Your task to perform on an android device: Show me productivity apps on the Play Store Image 0: 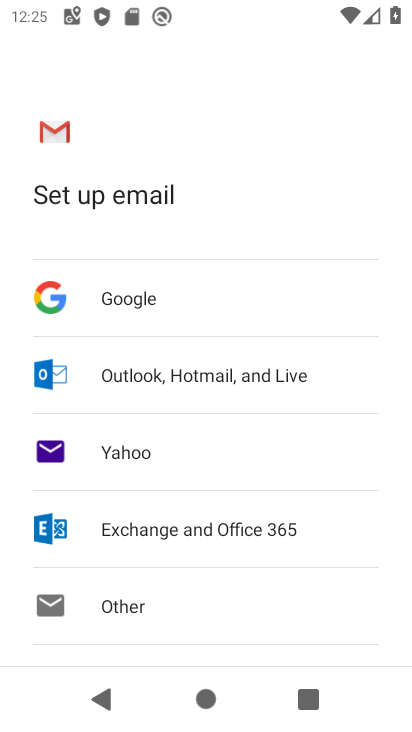
Step 0: press home button
Your task to perform on an android device: Show me productivity apps on the Play Store Image 1: 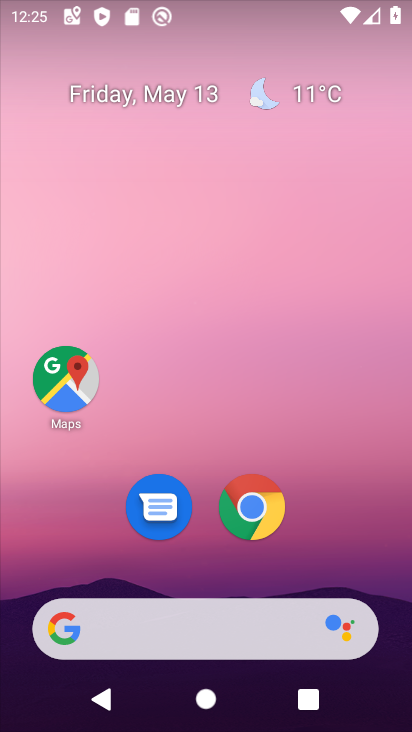
Step 1: drag from (209, 581) to (264, 21)
Your task to perform on an android device: Show me productivity apps on the Play Store Image 2: 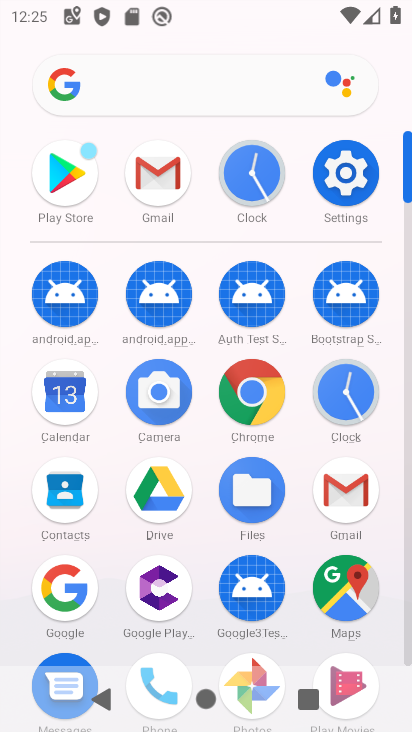
Step 2: click (62, 178)
Your task to perform on an android device: Show me productivity apps on the Play Store Image 3: 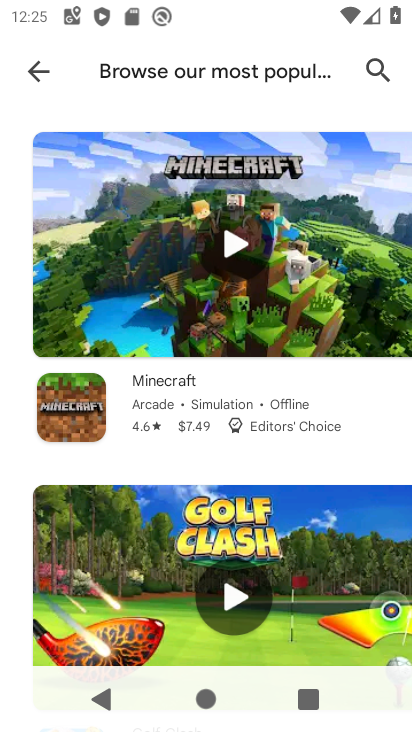
Step 3: click (40, 66)
Your task to perform on an android device: Show me productivity apps on the Play Store Image 4: 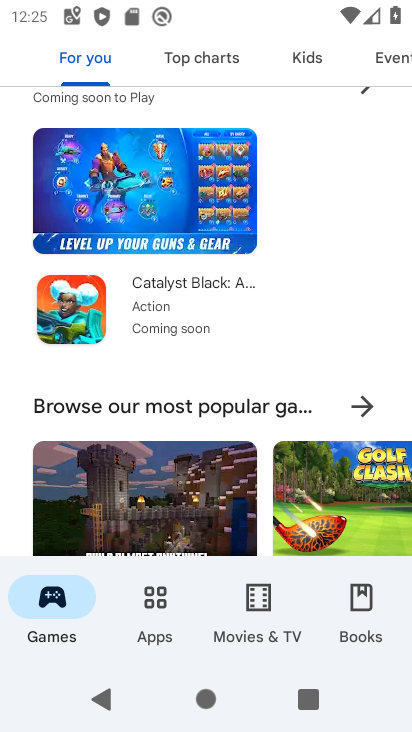
Step 4: click (169, 603)
Your task to perform on an android device: Show me productivity apps on the Play Store Image 5: 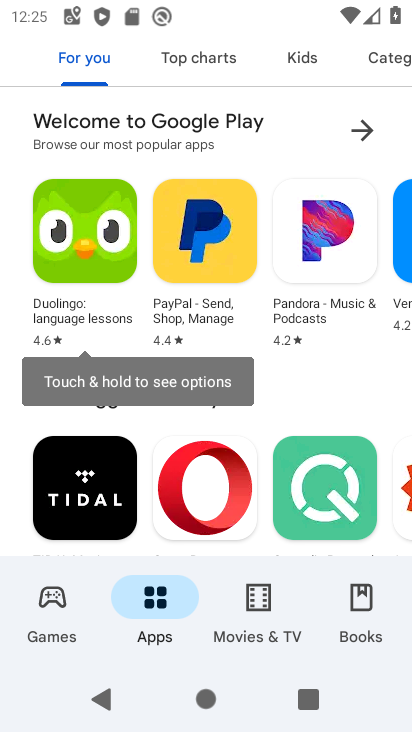
Step 5: click (405, 60)
Your task to perform on an android device: Show me productivity apps on the Play Store Image 6: 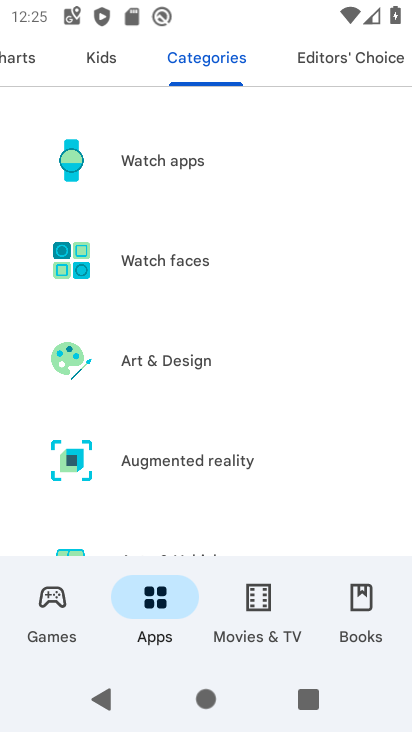
Step 6: drag from (270, 519) to (190, 4)
Your task to perform on an android device: Show me productivity apps on the Play Store Image 7: 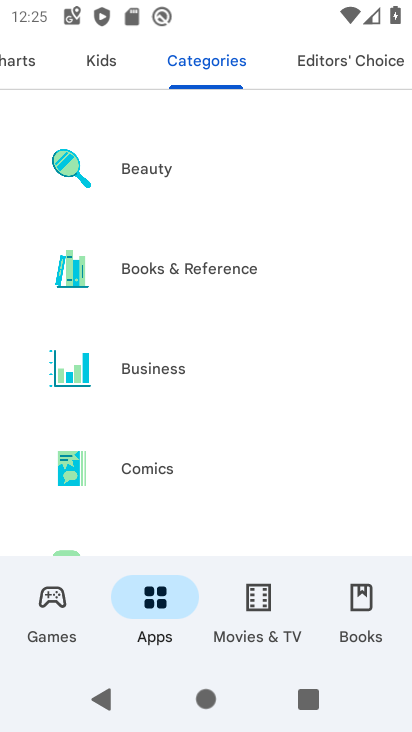
Step 7: drag from (194, 531) to (122, 28)
Your task to perform on an android device: Show me productivity apps on the Play Store Image 8: 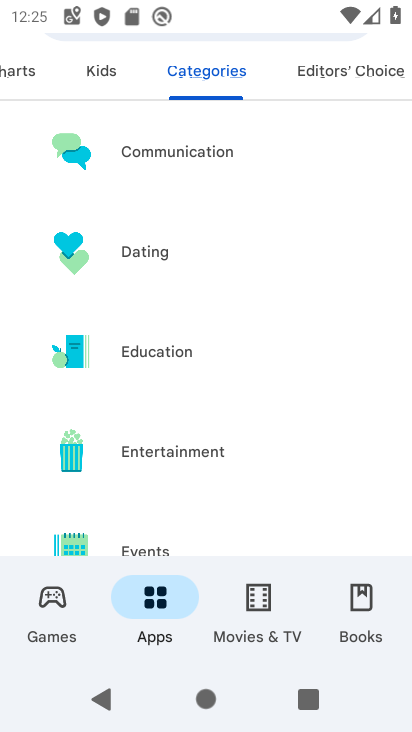
Step 8: drag from (209, 477) to (121, 10)
Your task to perform on an android device: Show me productivity apps on the Play Store Image 9: 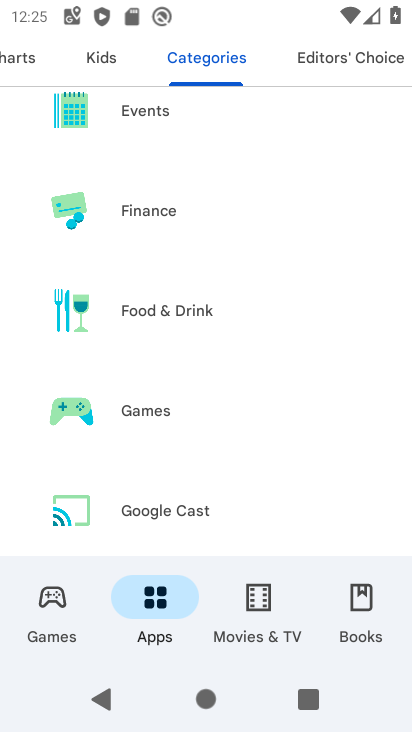
Step 9: drag from (225, 500) to (227, 80)
Your task to perform on an android device: Show me productivity apps on the Play Store Image 10: 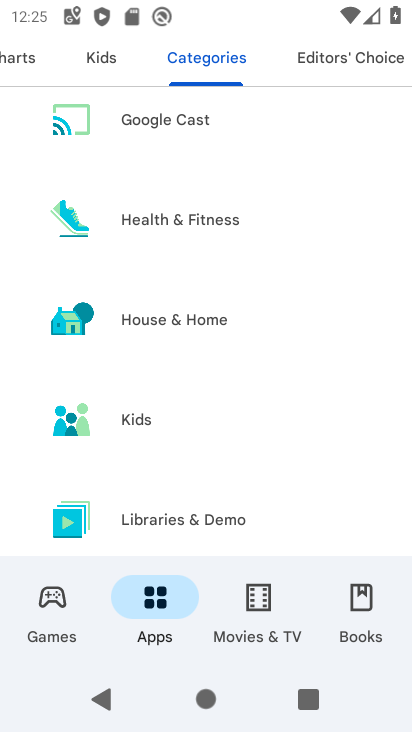
Step 10: drag from (196, 520) to (103, 4)
Your task to perform on an android device: Show me productivity apps on the Play Store Image 11: 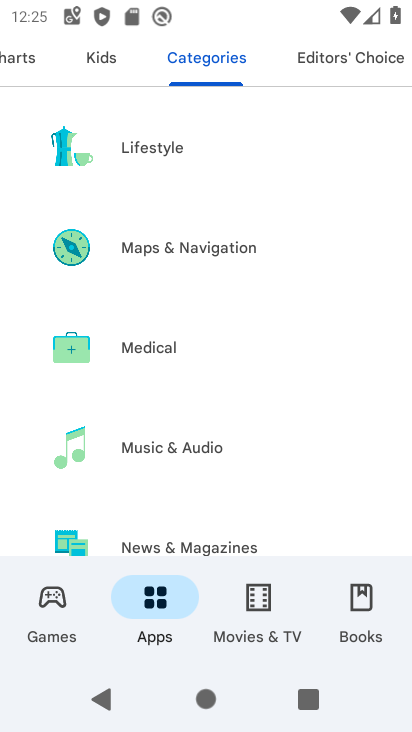
Step 11: drag from (186, 495) to (59, 21)
Your task to perform on an android device: Show me productivity apps on the Play Store Image 12: 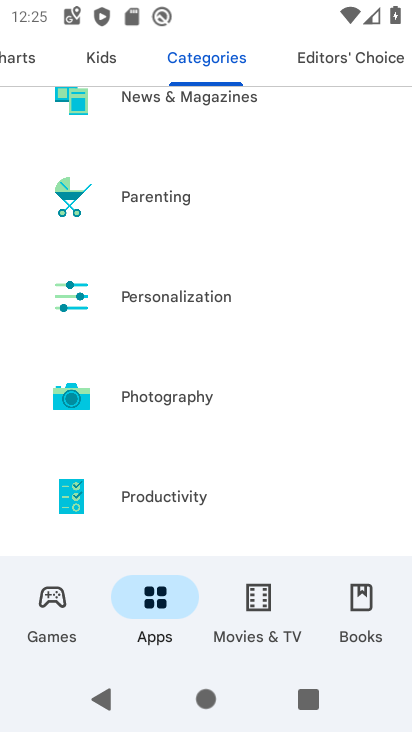
Step 12: click (195, 487)
Your task to perform on an android device: Show me productivity apps on the Play Store Image 13: 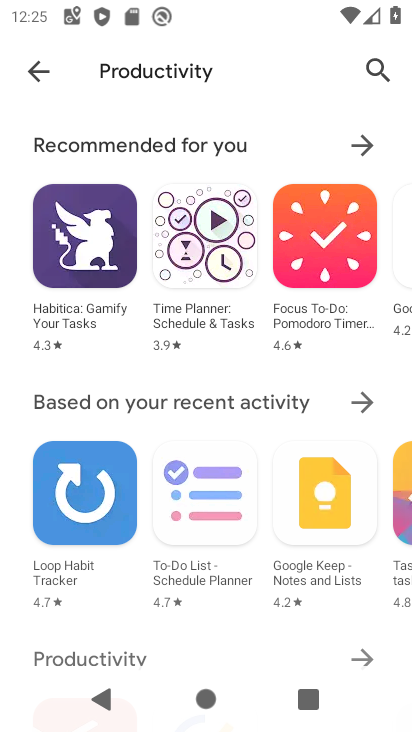
Step 13: task complete